Your task to perform on an android device: See recent photos Image 0: 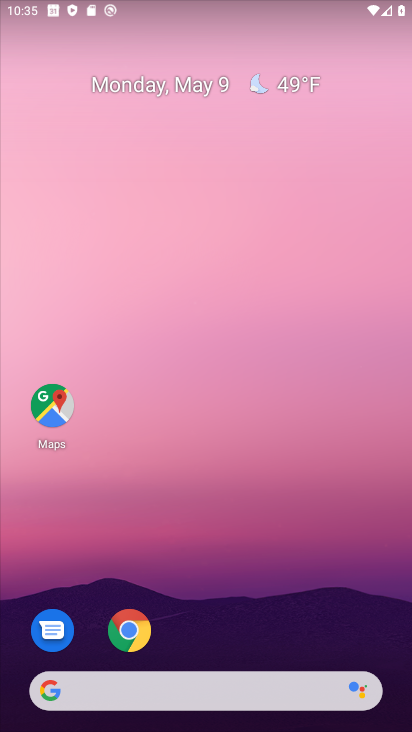
Step 0: drag from (247, 598) to (253, 146)
Your task to perform on an android device: See recent photos Image 1: 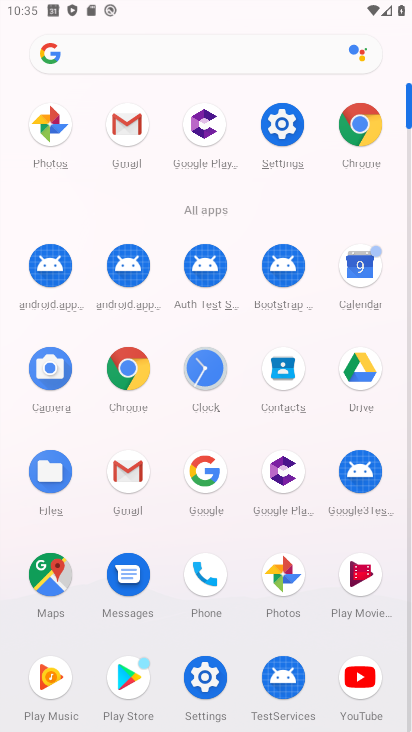
Step 1: click (61, 158)
Your task to perform on an android device: See recent photos Image 2: 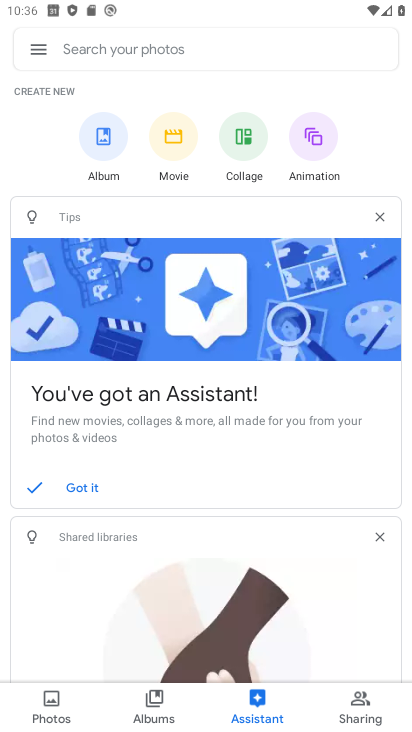
Step 2: click (47, 697)
Your task to perform on an android device: See recent photos Image 3: 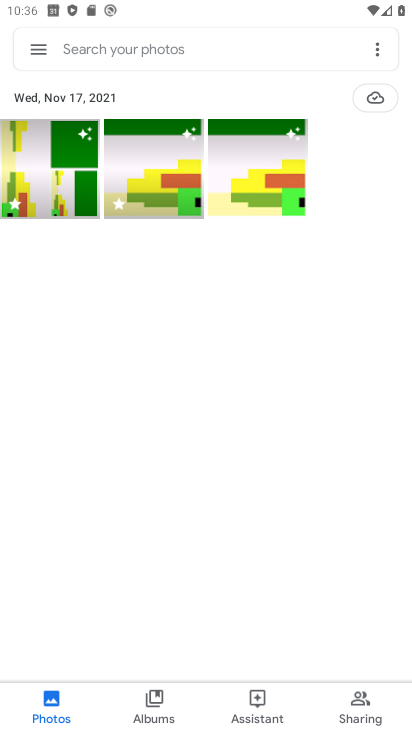
Step 3: task complete